Your task to perform on an android device: toggle data saver in the chrome app Image 0: 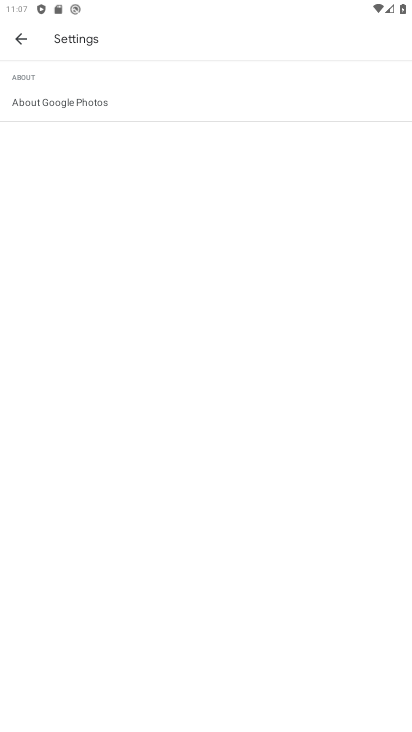
Step 0: press home button
Your task to perform on an android device: toggle data saver in the chrome app Image 1: 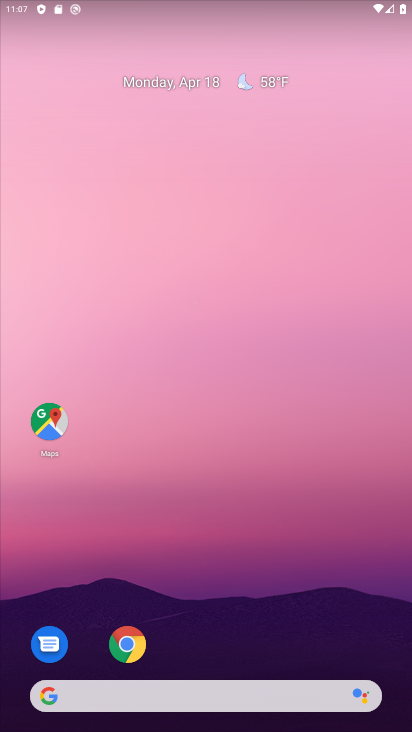
Step 1: click (134, 644)
Your task to perform on an android device: toggle data saver in the chrome app Image 2: 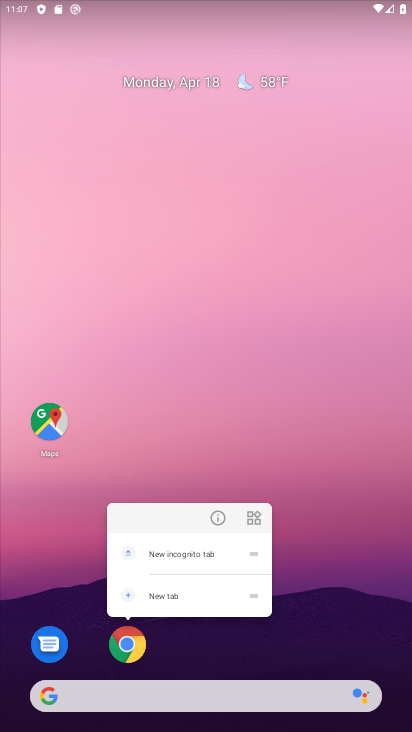
Step 2: click (220, 513)
Your task to perform on an android device: toggle data saver in the chrome app Image 3: 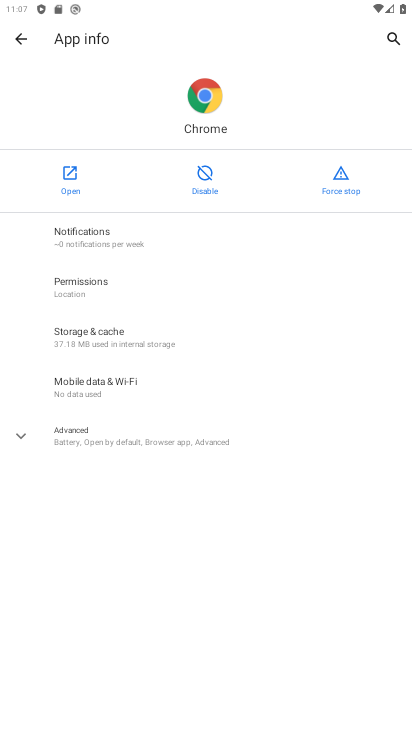
Step 3: click (72, 183)
Your task to perform on an android device: toggle data saver in the chrome app Image 4: 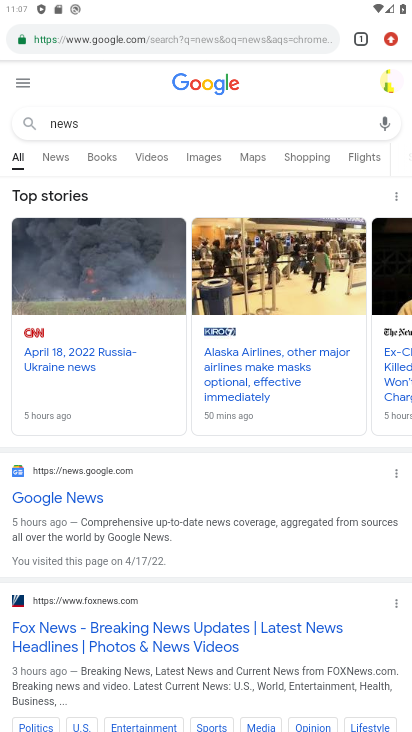
Step 4: click (385, 39)
Your task to perform on an android device: toggle data saver in the chrome app Image 5: 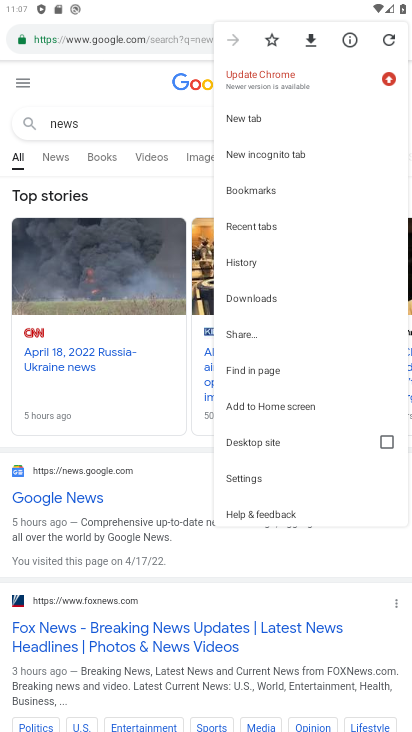
Step 5: click (249, 472)
Your task to perform on an android device: toggle data saver in the chrome app Image 6: 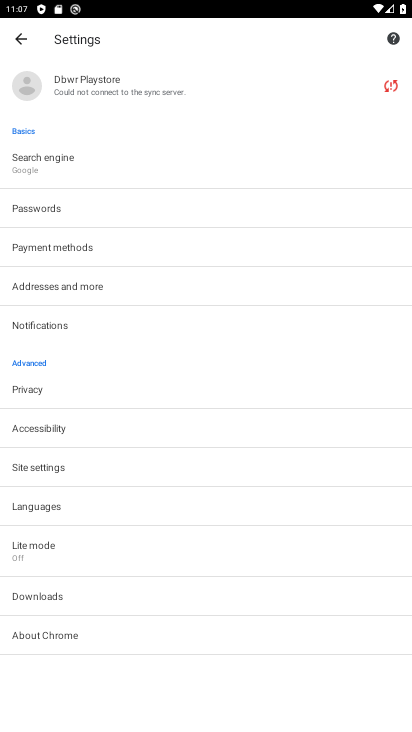
Step 6: click (41, 546)
Your task to perform on an android device: toggle data saver in the chrome app Image 7: 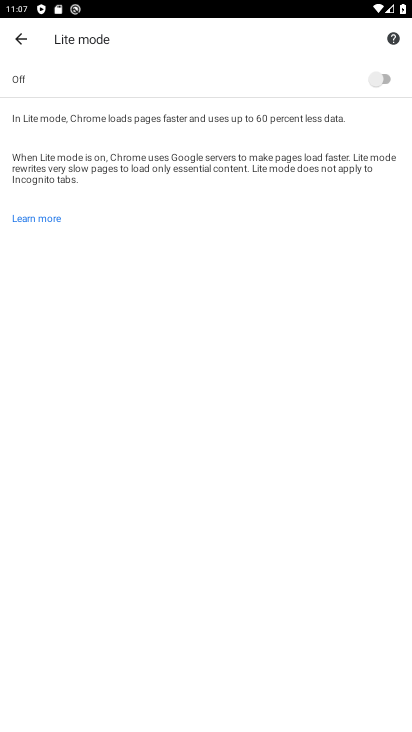
Step 7: click (379, 76)
Your task to perform on an android device: toggle data saver in the chrome app Image 8: 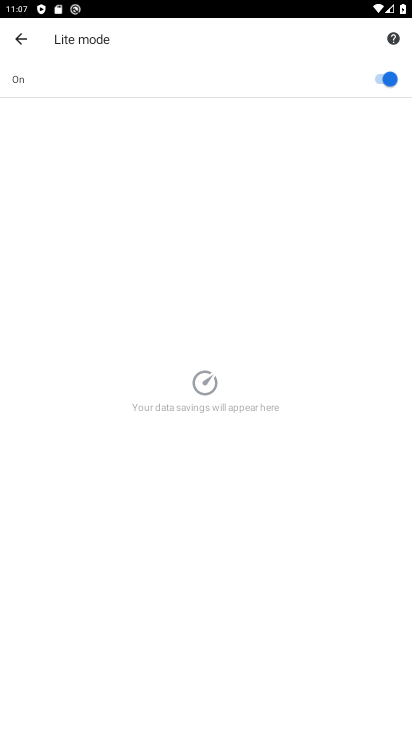
Step 8: task complete